Your task to perform on an android device: Open notification settings Image 0: 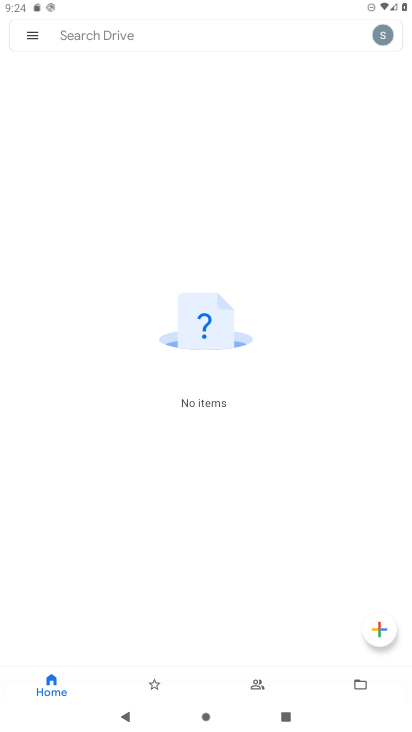
Step 0: press home button
Your task to perform on an android device: Open notification settings Image 1: 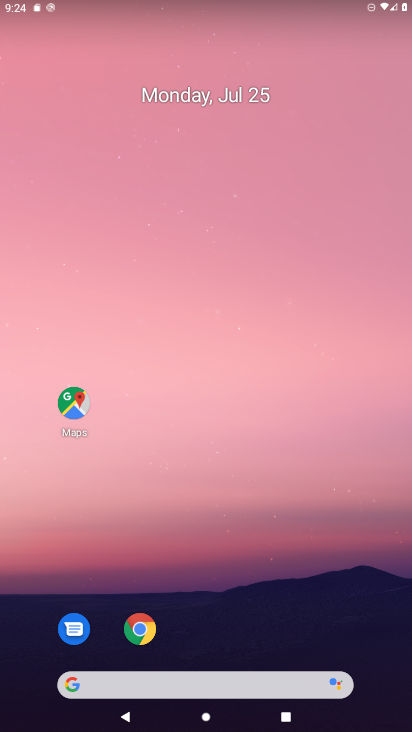
Step 1: drag from (231, 667) to (246, 2)
Your task to perform on an android device: Open notification settings Image 2: 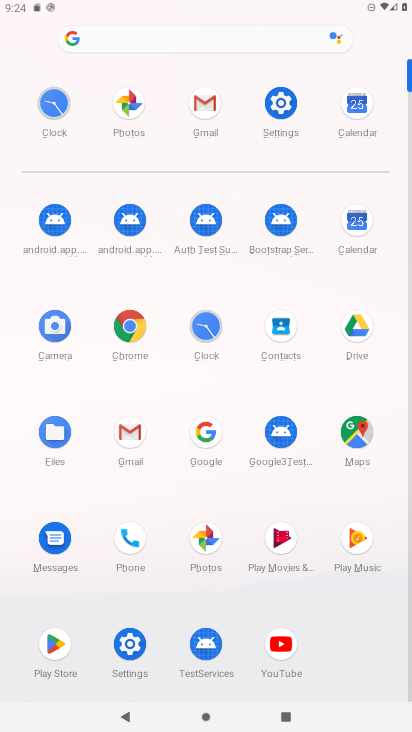
Step 2: click (268, 89)
Your task to perform on an android device: Open notification settings Image 3: 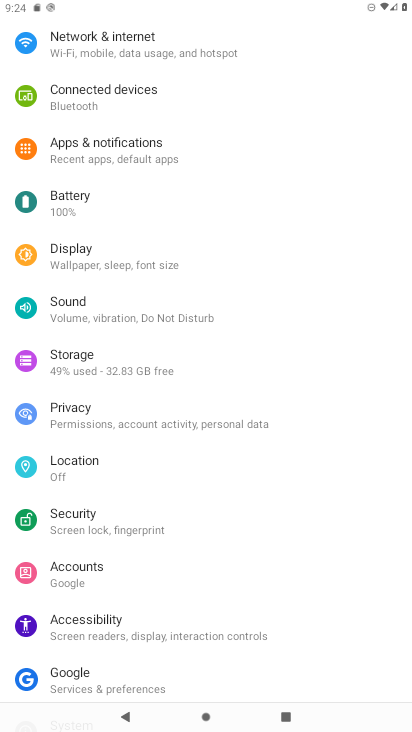
Step 3: click (124, 145)
Your task to perform on an android device: Open notification settings Image 4: 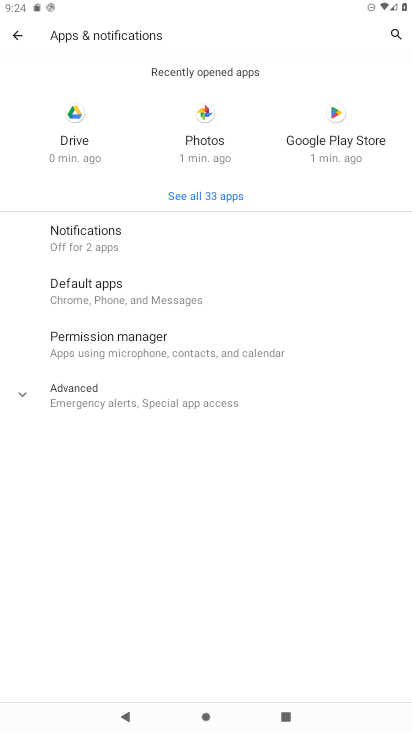
Step 4: click (106, 229)
Your task to perform on an android device: Open notification settings Image 5: 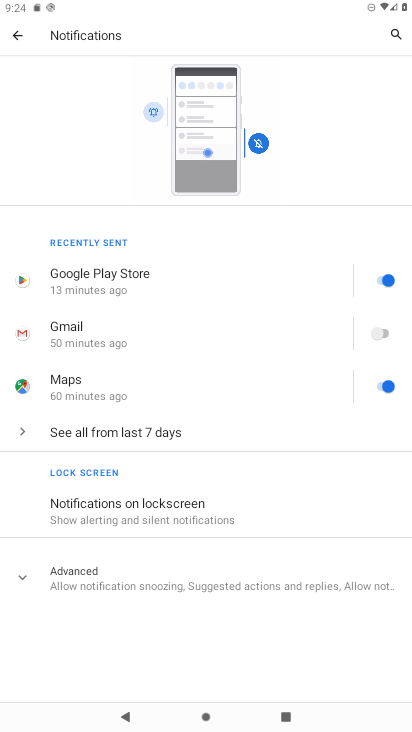
Step 5: task complete